Your task to perform on an android device: Show the shopping cart on amazon. Add panasonic triple a to the cart on amazon Image 0: 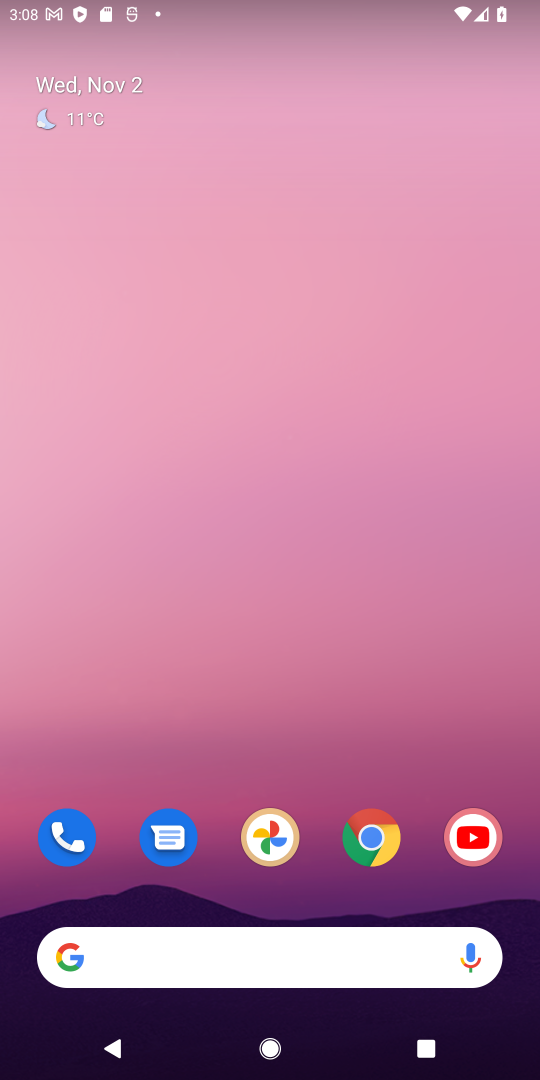
Step 0: drag from (315, 813) to (305, 132)
Your task to perform on an android device: Show the shopping cart on amazon. Add panasonic triple a to the cart on amazon Image 1: 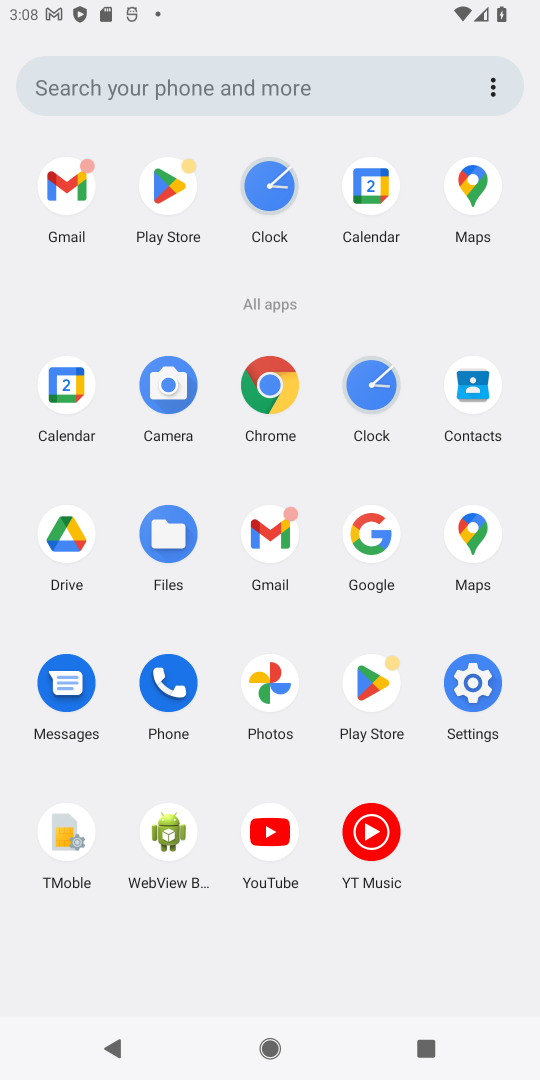
Step 1: click (262, 382)
Your task to perform on an android device: Show the shopping cart on amazon. Add panasonic triple a to the cart on amazon Image 2: 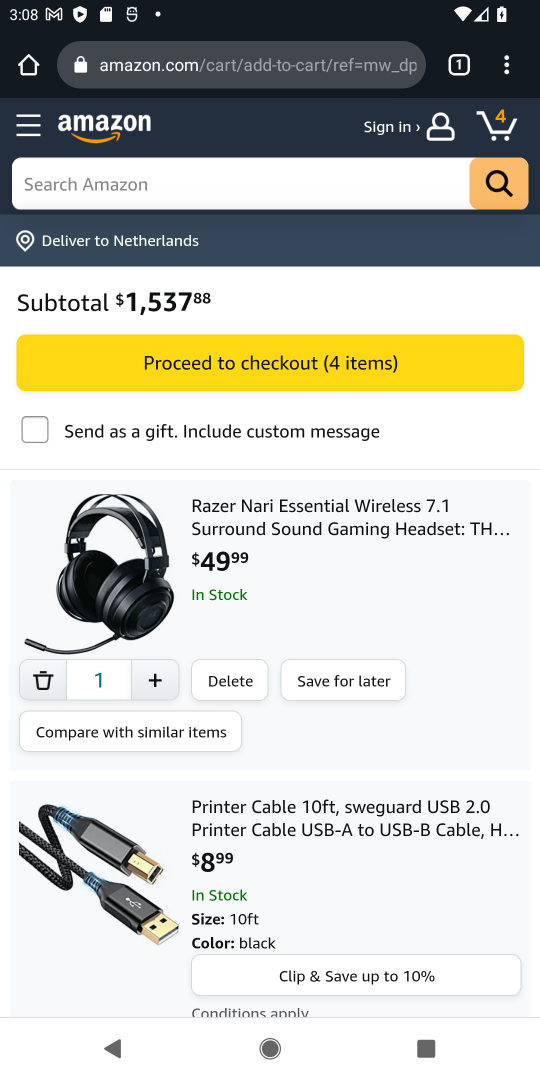
Step 2: click (83, 179)
Your task to perform on an android device: Show the shopping cart on amazon. Add panasonic triple a to the cart on amazon Image 3: 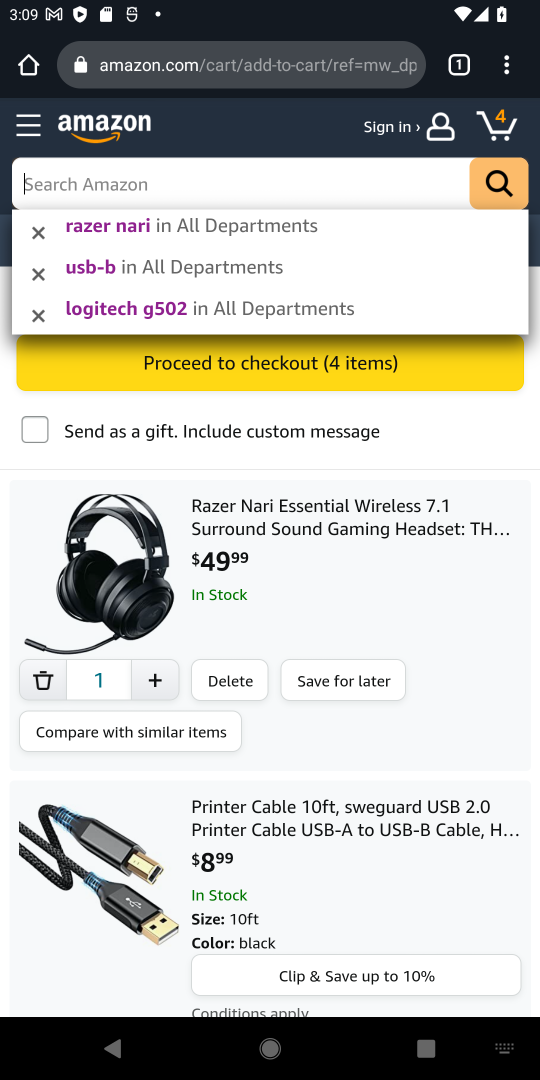
Step 3: type "panasonic triple a"
Your task to perform on an android device: Show the shopping cart on amazon. Add panasonic triple a to the cart on amazon Image 4: 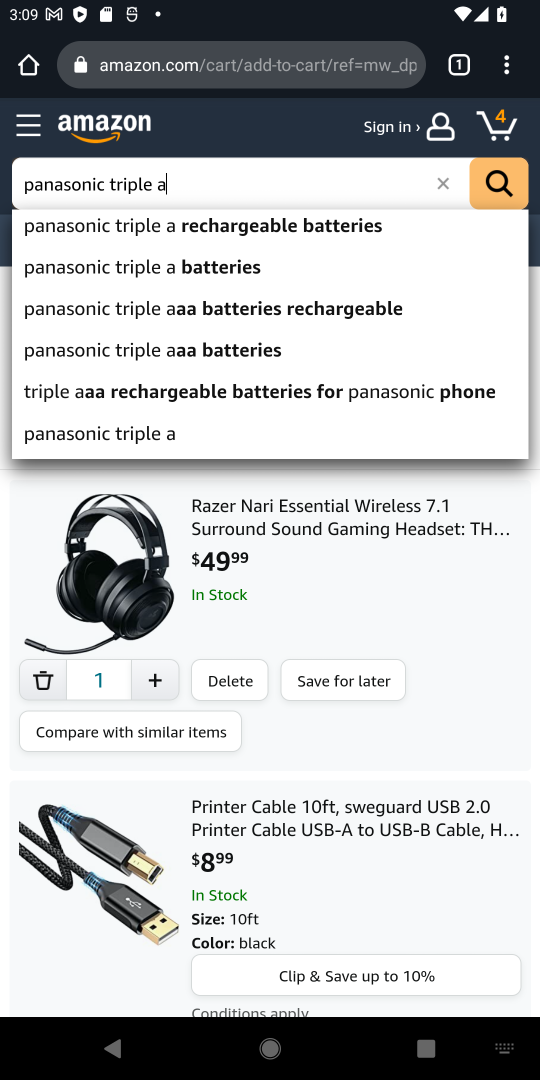
Step 4: click (164, 231)
Your task to perform on an android device: Show the shopping cart on amazon. Add panasonic triple a to the cart on amazon Image 5: 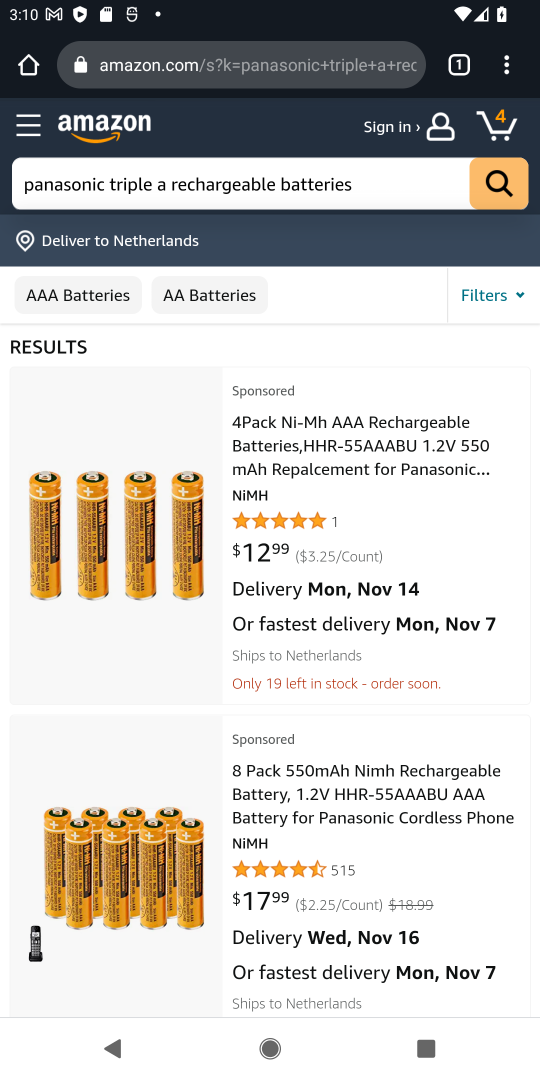
Step 5: drag from (276, 862) to (282, 381)
Your task to perform on an android device: Show the shopping cart on amazon. Add panasonic triple a to the cart on amazon Image 6: 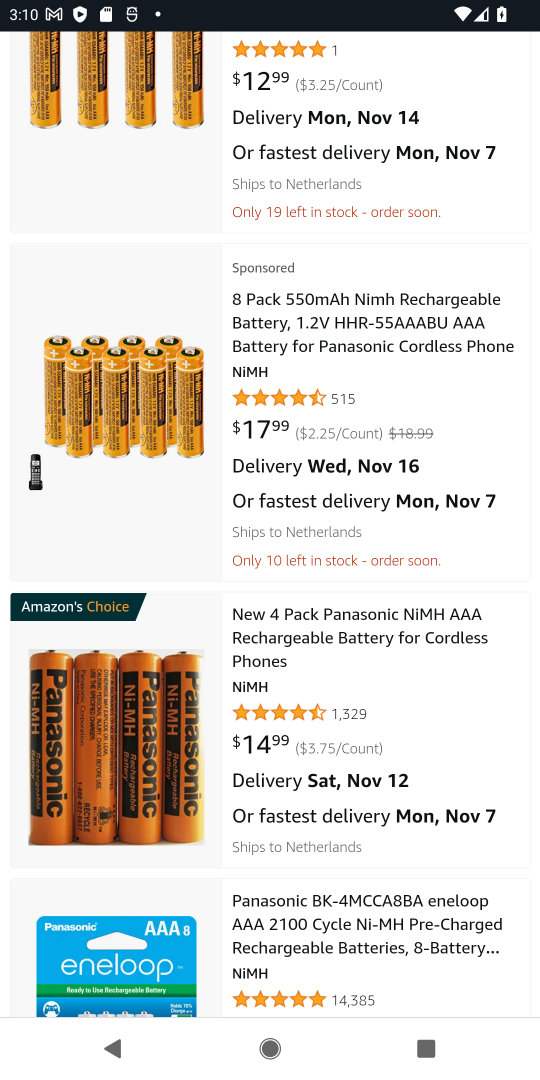
Step 6: click (315, 626)
Your task to perform on an android device: Show the shopping cart on amazon. Add panasonic triple a to the cart on amazon Image 7: 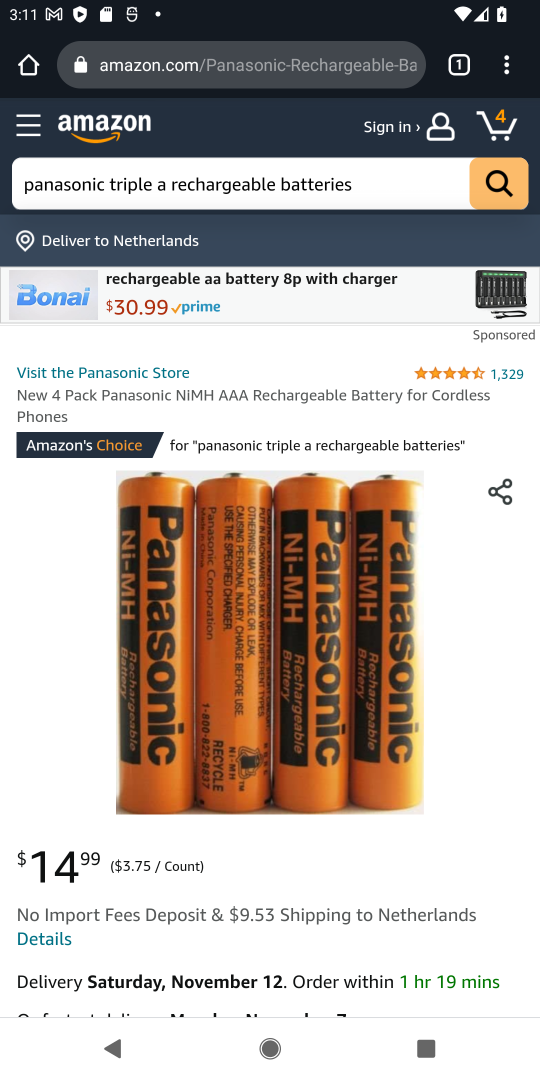
Step 7: drag from (264, 954) to (287, 573)
Your task to perform on an android device: Show the shopping cart on amazon. Add panasonic triple a to the cart on amazon Image 8: 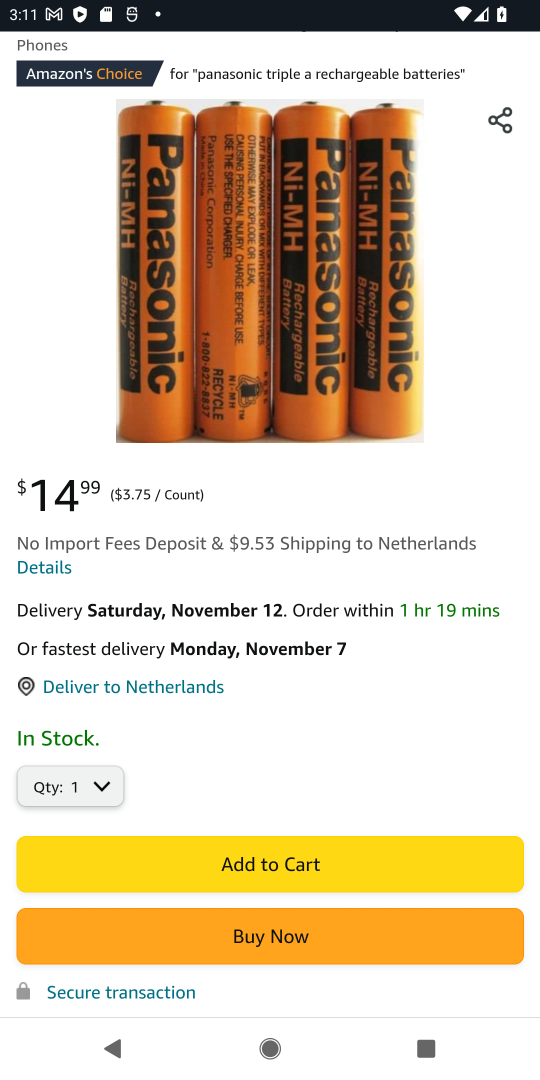
Step 8: click (295, 858)
Your task to perform on an android device: Show the shopping cart on amazon. Add panasonic triple a to the cart on amazon Image 9: 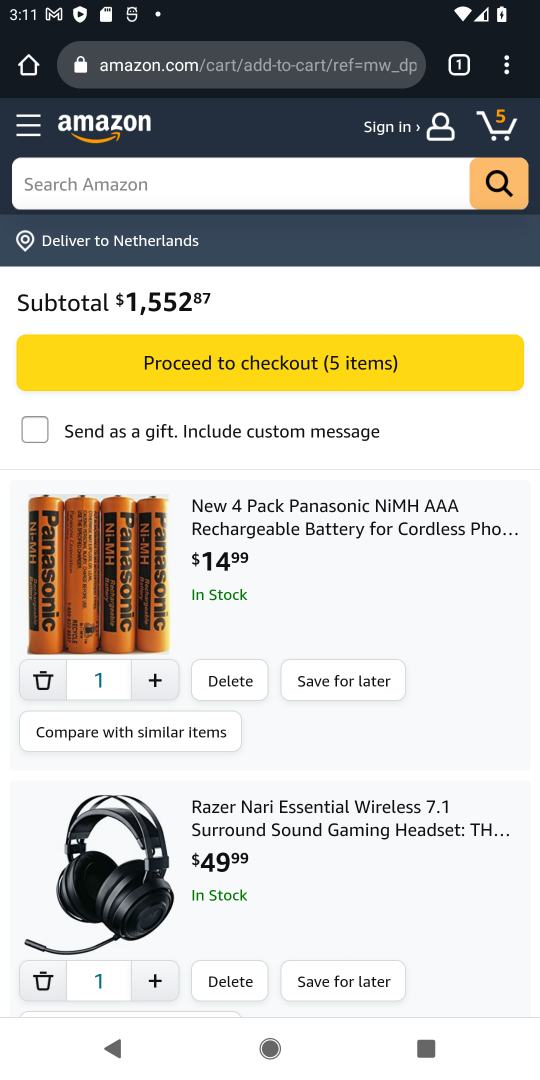
Step 9: task complete